Your task to perform on an android device: turn on improve location accuracy Image 0: 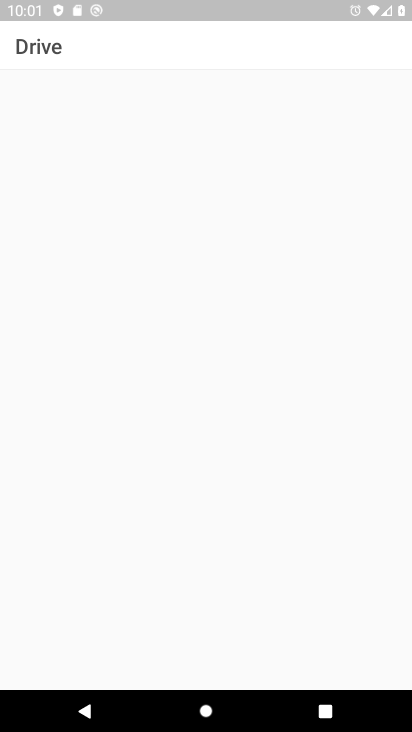
Step 0: press back button
Your task to perform on an android device: turn on improve location accuracy Image 1: 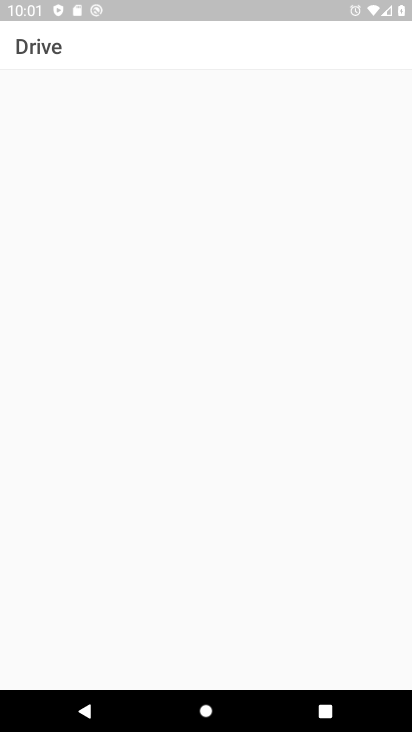
Step 1: press home button
Your task to perform on an android device: turn on improve location accuracy Image 2: 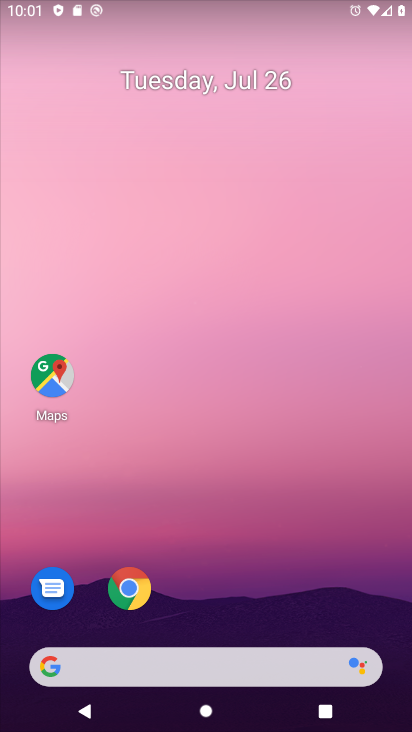
Step 2: drag from (206, 626) to (305, 2)
Your task to perform on an android device: turn on improve location accuracy Image 3: 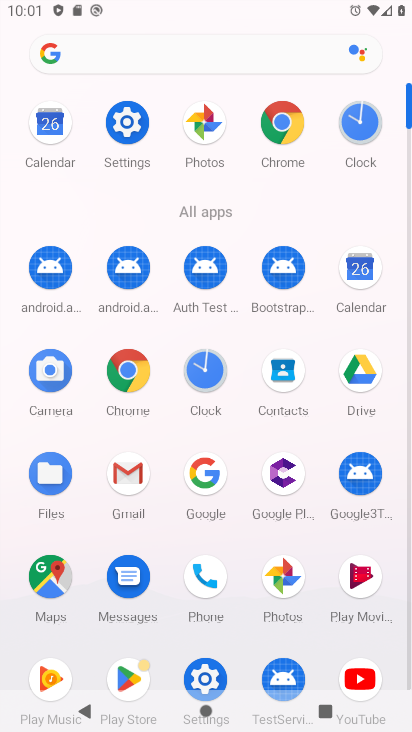
Step 3: click (129, 122)
Your task to perform on an android device: turn on improve location accuracy Image 4: 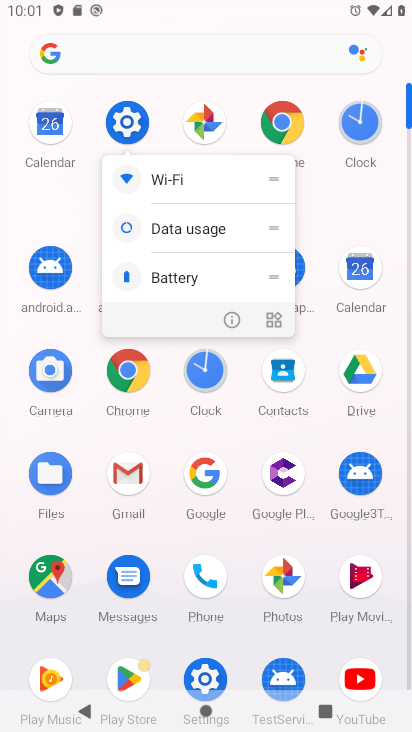
Step 4: click (127, 118)
Your task to perform on an android device: turn on improve location accuracy Image 5: 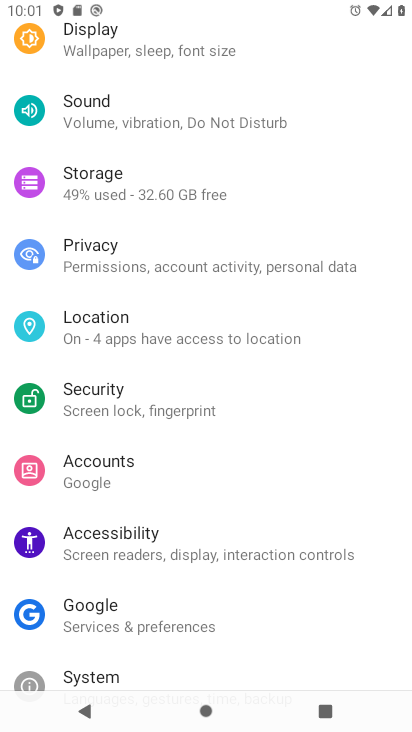
Step 5: click (101, 339)
Your task to perform on an android device: turn on improve location accuracy Image 6: 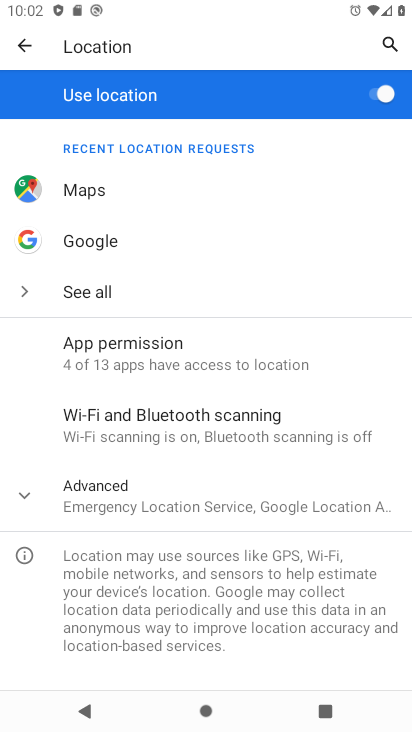
Step 6: click (172, 490)
Your task to perform on an android device: turn on improve location accuracy Image 7: 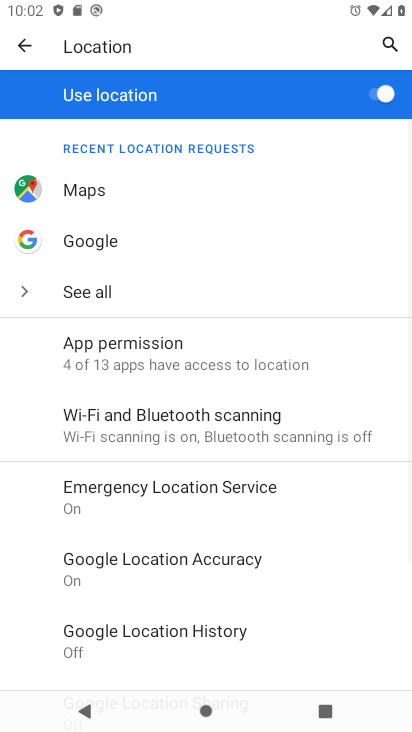
Step 7: click (174, 572)
Your task to perform on an android device: turn on improve location accuracy Image 8: 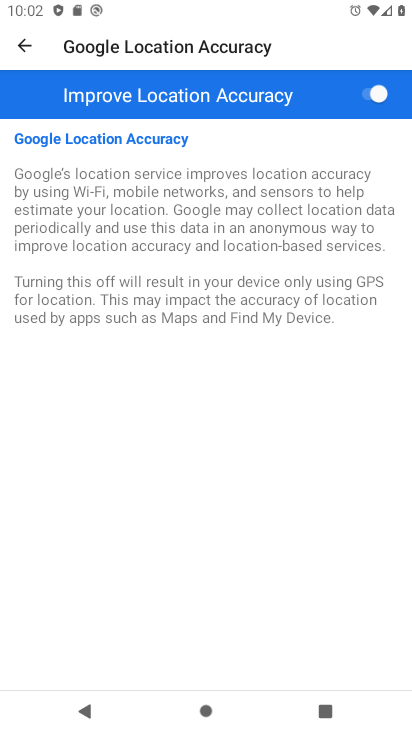
Step 8: task complete